Your task to perform on an android device: delete location history Image 0: 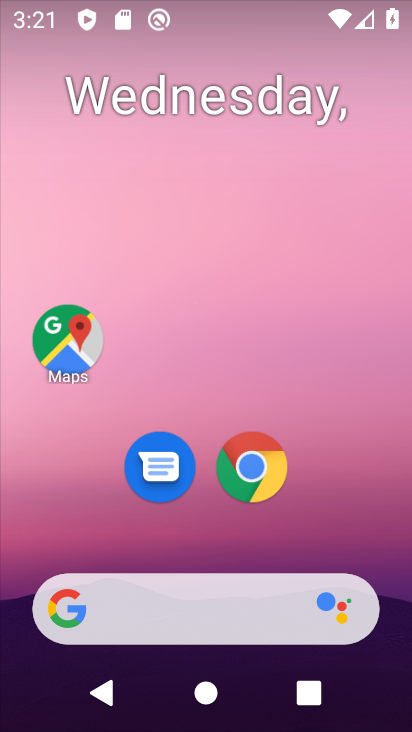
Step 0: drag from (348, 549) to (263, 22)
Your task to perform on an android device: delete location history Image 1: 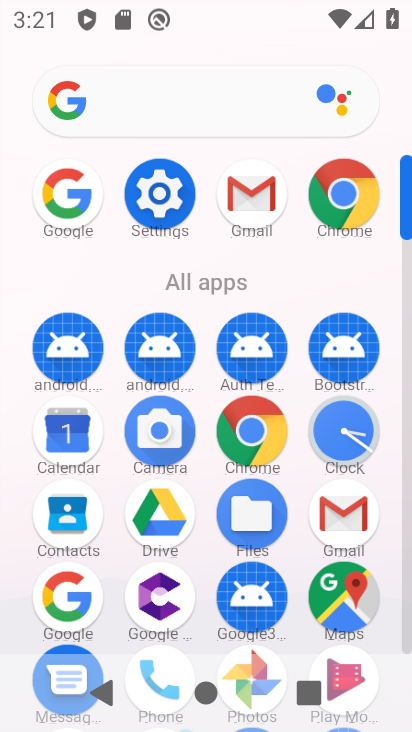
Step 1: click (160, 201)
Your task to perform on an android device: delete location history Image 2: 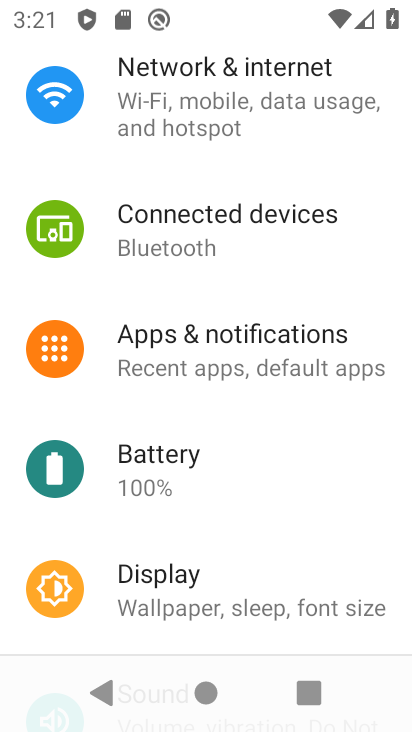
Step 2: drag from (243, 523) to (312, 76)
Your task to perform on an android device: delete location history Image 3: 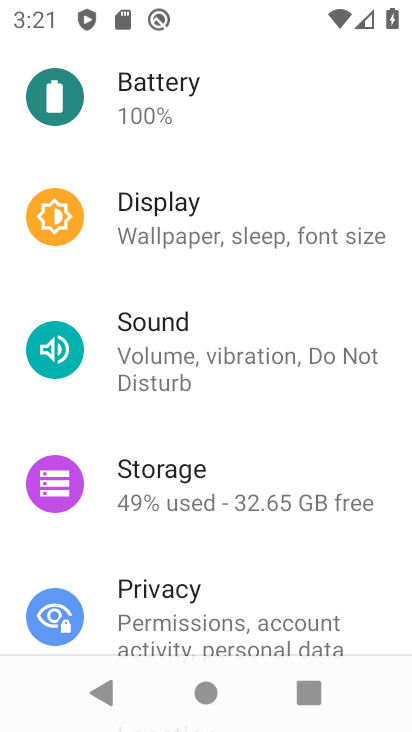
Step 3: drag from (248, 450) to (267, 91)
Your task to perform on an android device: delete location history Image 4: 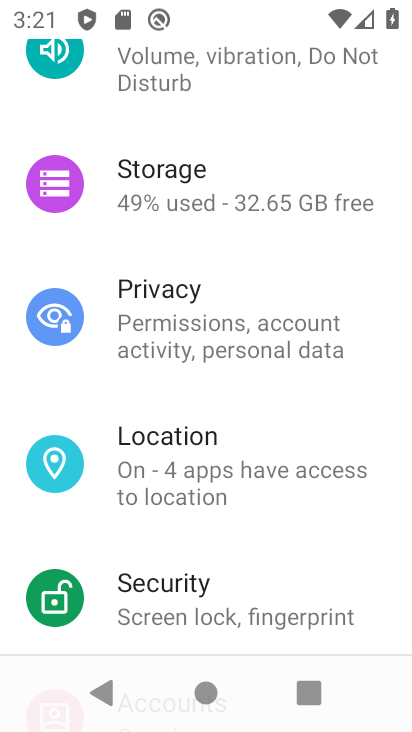
Step 4: click (199, 471)
Your task to perform on an android device: delete location history Image 5: 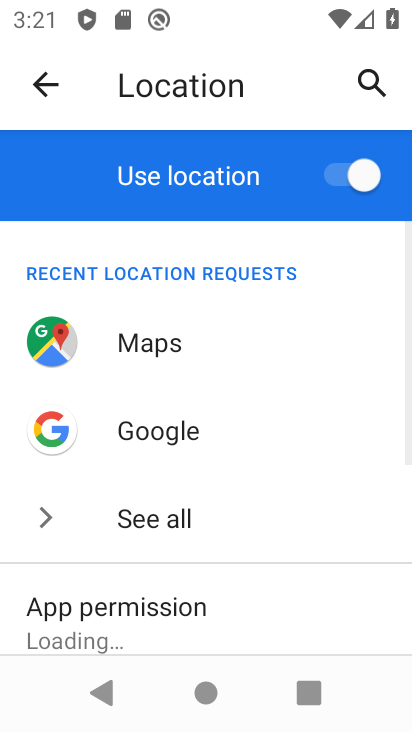
Step 5: drag from (298, 587) to (339, 116)
Your task to perform on an android device: delete location history Image 6: 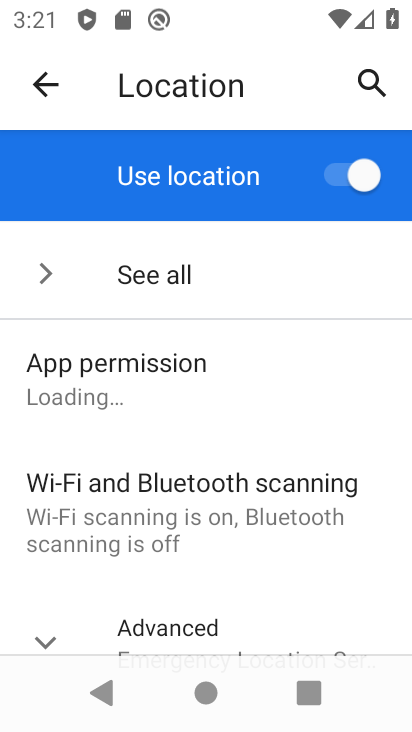
Step 6: drag from (263, 607) to (310, 141)
Your task to perform on an android device: delete location history Image 7: 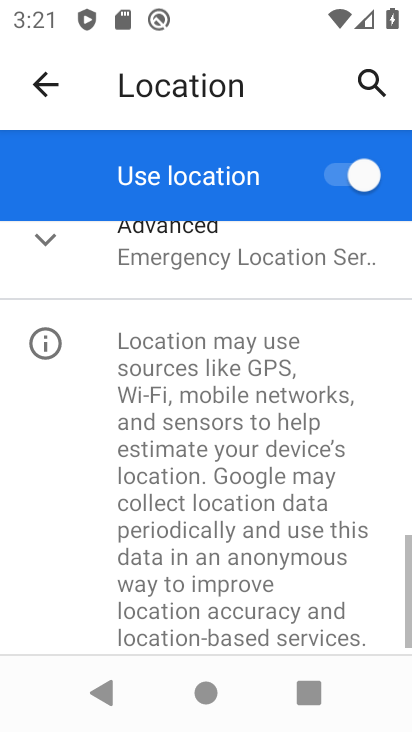
Step 7: click (152, 237)
Your task to perform on an android device: delete location history Image 8: 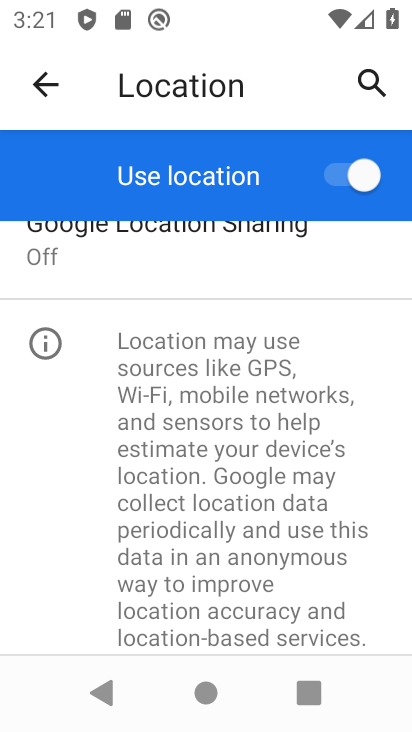
Step 8: drag from (223, 337) to (242, 641)
Your task to perform on an android device: delete location history Image 9: 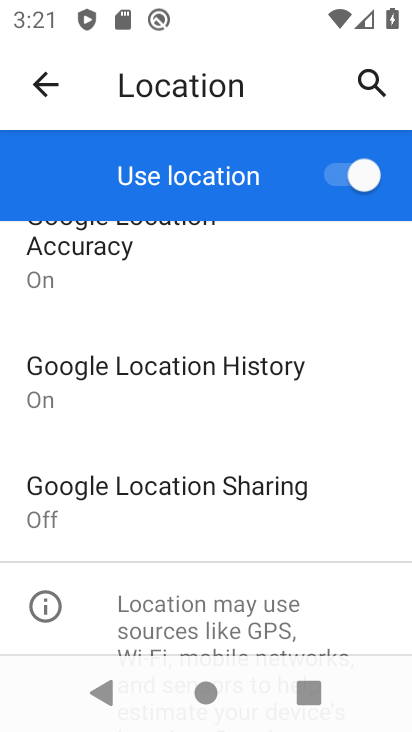
Step 9: click (236, 374)
Your task to perform on an android device: delete location history Image 10: 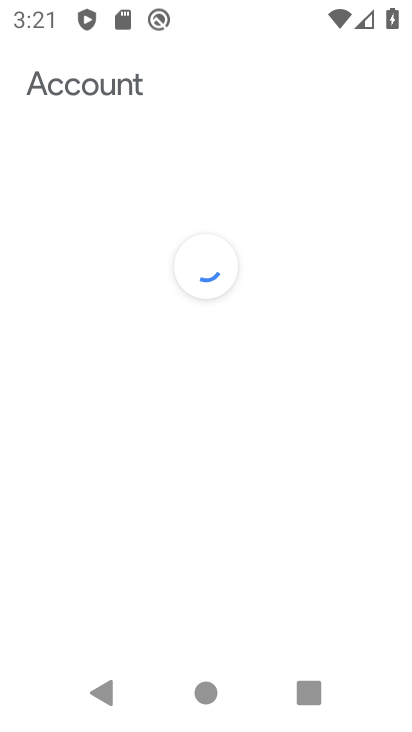
Step 10: drag from (230, 360) to (258, 87)
Your task to perform on an android device: delete location history Image 11: 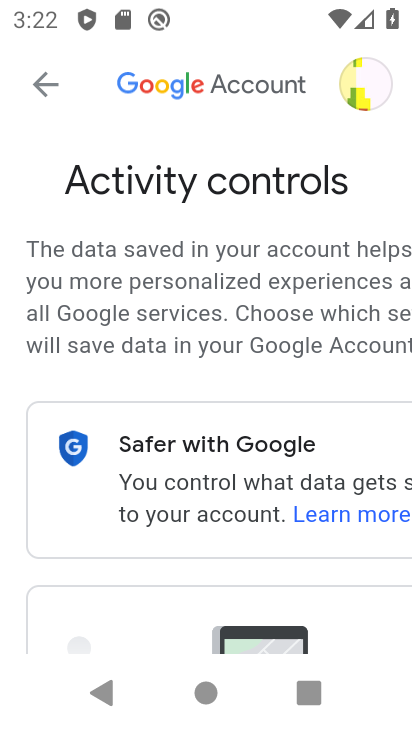
Step 11: drag from (154, 555) to (244, 31)
Your task to perform on an android device: delete location history Image 12: 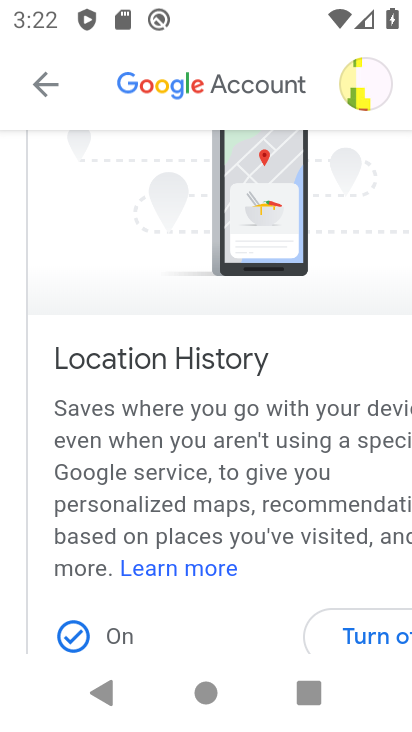
Step 12: drag from (158, 505) to (212, 148)
Your task to perform on an android device: delete location history Image 13: 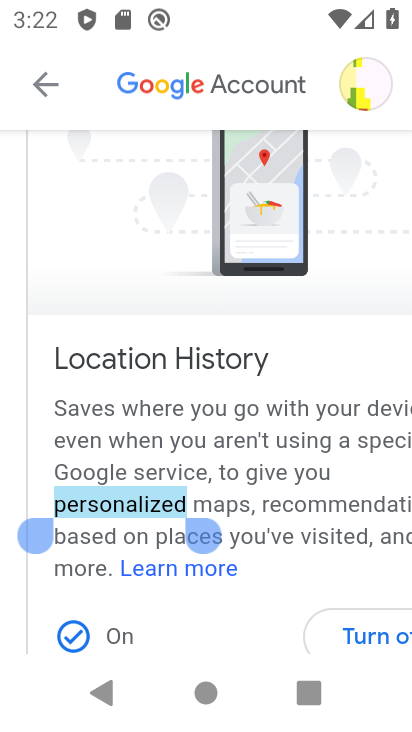
Step 13: drag from (157, 602) to (204, 290)
Your task to perform on an android device: delete location history Image 14: 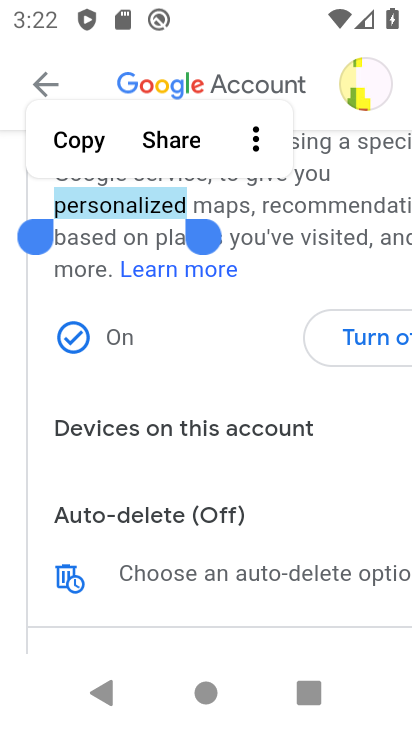
Step 14: click (74, 581)
Your task to perform on an android device: delete location history Image 15: 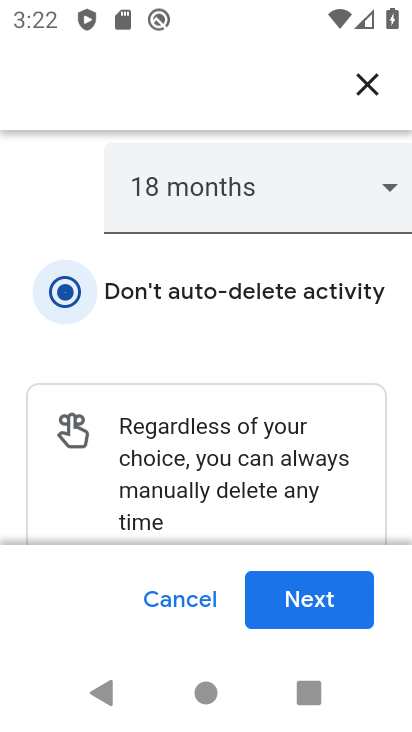
Step 15: click (331, 587)
Your task to perform on an android device: delete location history Image 16: 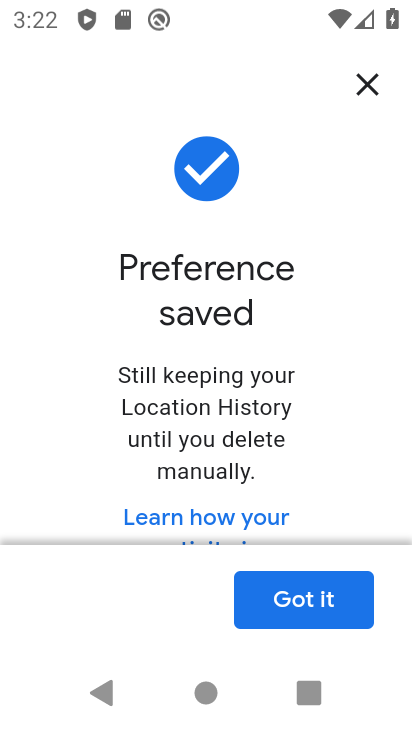
Step 16: click (310, 615)
Your task to perform on an android device: delete location history Image 17: 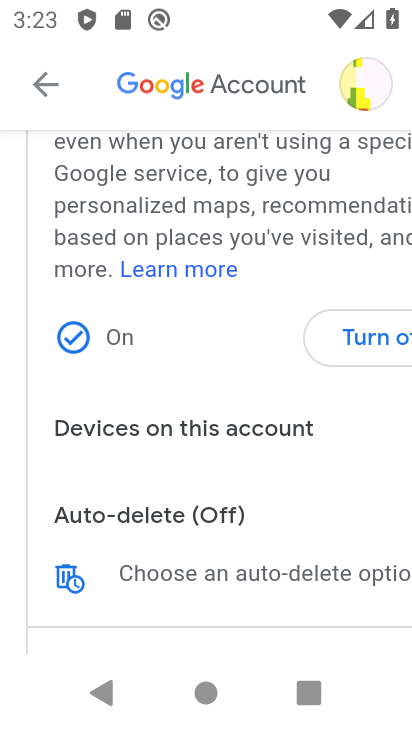
Step 17: task complete